Your task to perform on an android device: manage bookmarks in the chrome app Image 0: 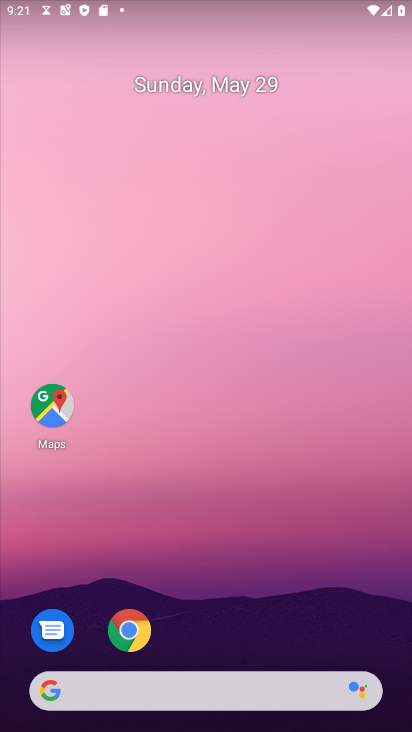
Step 0: click (131, 631)
Your task to perform on an android device: manage bookmarks in the chrome app Image 1: 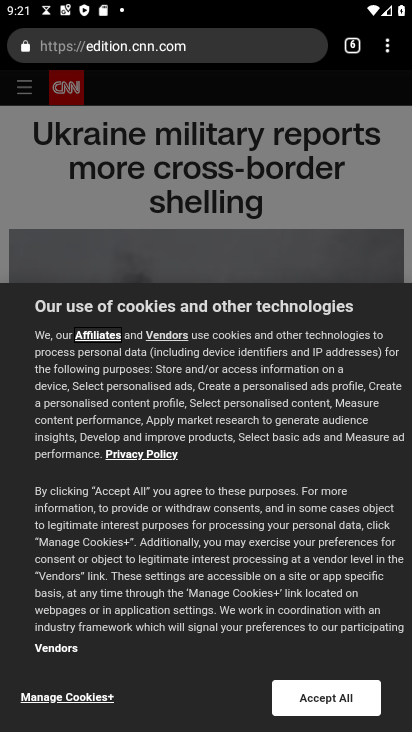
Step 1: click (392, 47)
Your task to perform on an android device: manage bookmarks in the chrome app Image 2: 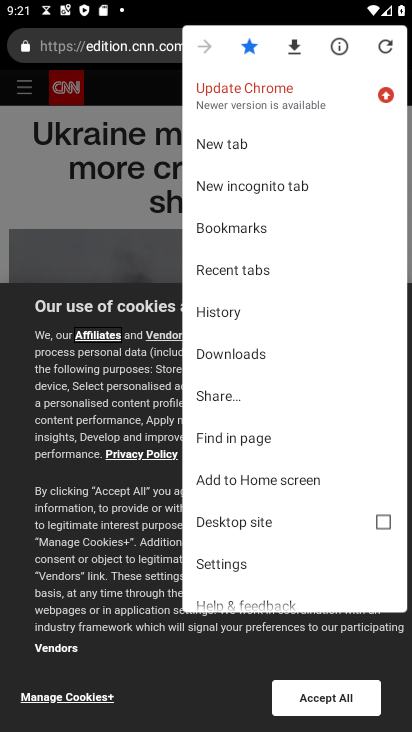
Step 2: click (267, 229)
Your task to perform on an android device: manage bookmarks in the chrome app Image 3: 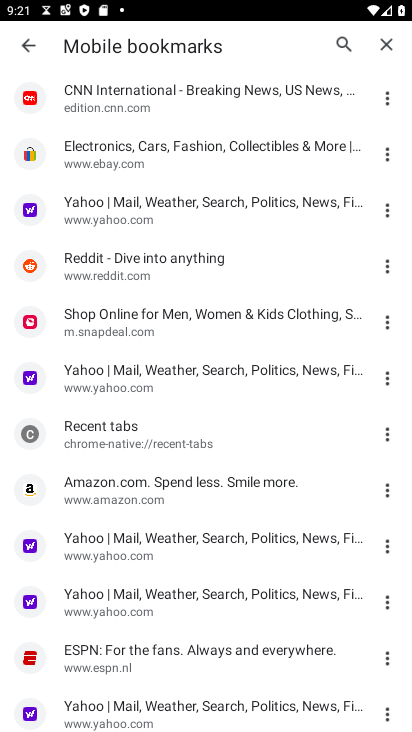
Step 3: click (385, 439)
Your task to perform on an android device: manage bookmarks in the chrome app Image 4: 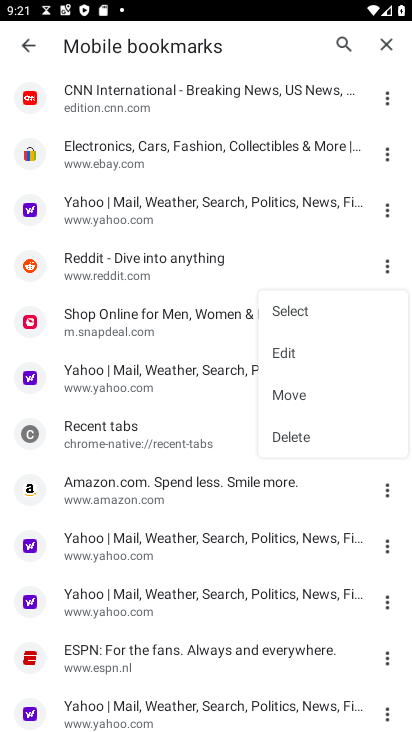
Step 4: click (288, 436)
Your task to perform on an android device: manage bookmarks in the chrome app Image 5: 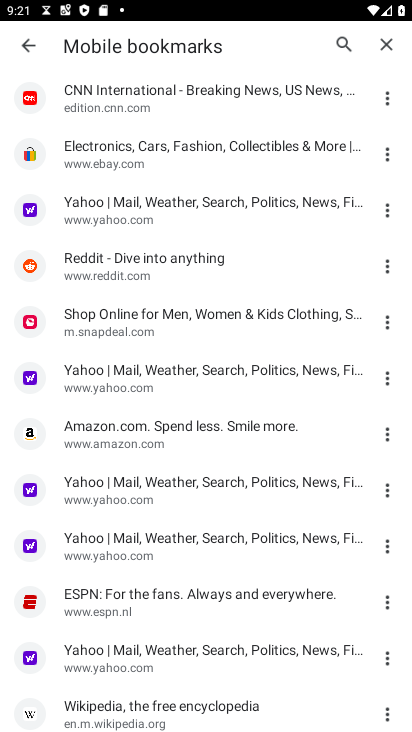
Step 5: task complete